Your task to perform on an android device: turn on sleep mode Image 0: 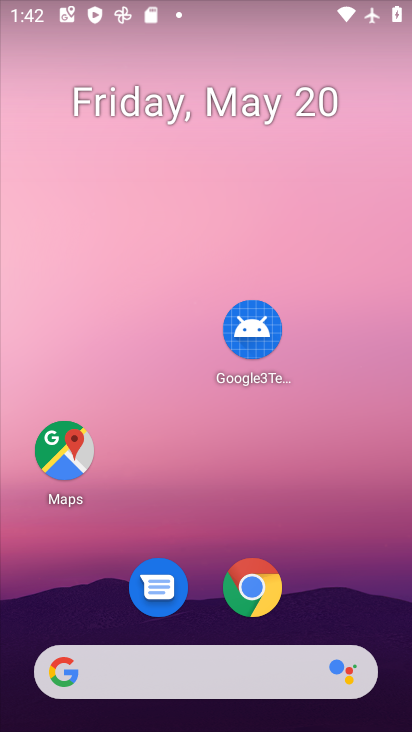
Step 0: drag from (341, 512) to (255, 86)
Your task to perform on an android device: turn on sleep mode Image 1: 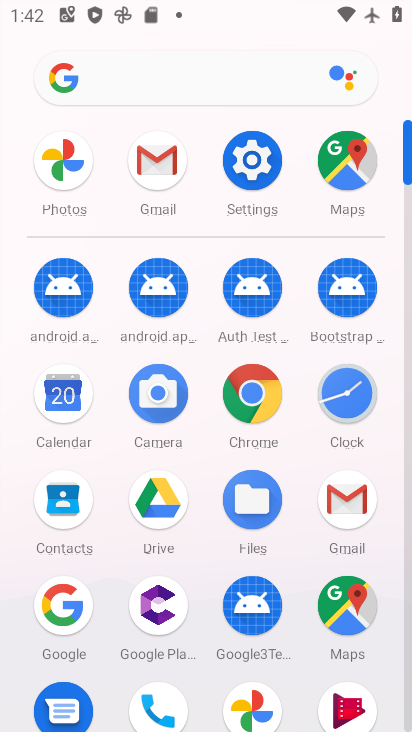
Step 1: click (251, 157)
Your task to perform on an android device: turn on sleep mode Image 2: 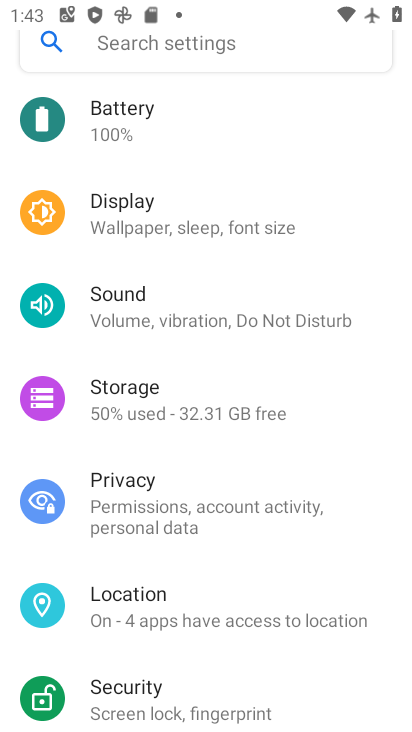
Step 2: click (121, 197)
Your task to perform on an android device: turn on sleep mode Image 3: 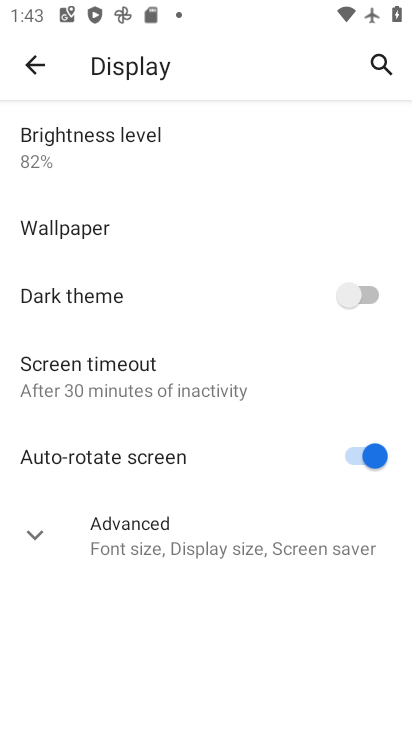
Step 3: task complete